Your task to perform on an android device: turn smart compose on in the gmail app Image 0: 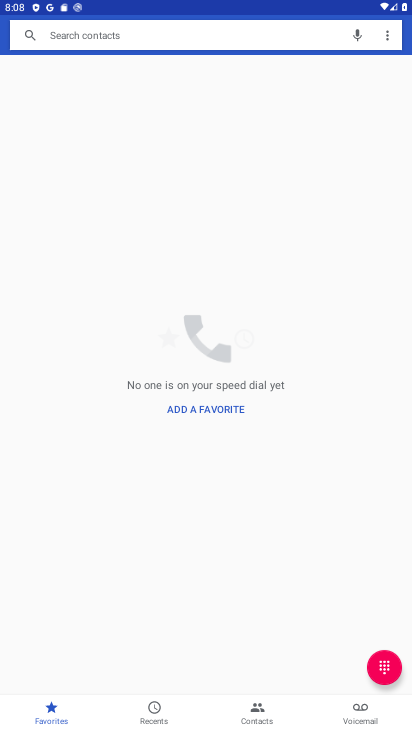
Step 0: press home button
Your task to perform on an android device: turn smart compose on in the gmail app Image 1: 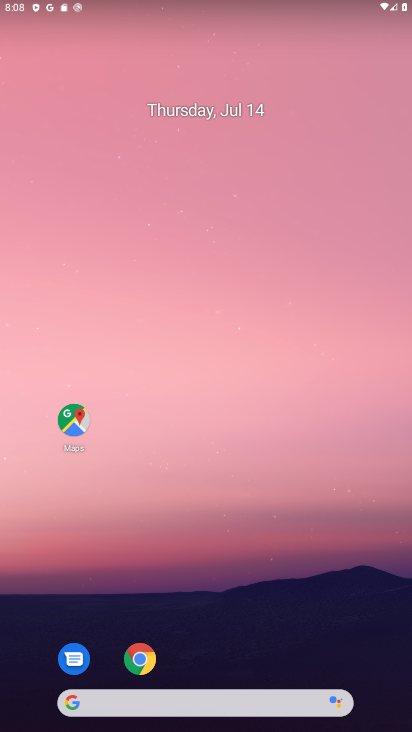
Step 1: drag from (201, 570) to (11, 25)
Your task to perform on an android device: turn smart compose on in the gmail app Image 2: 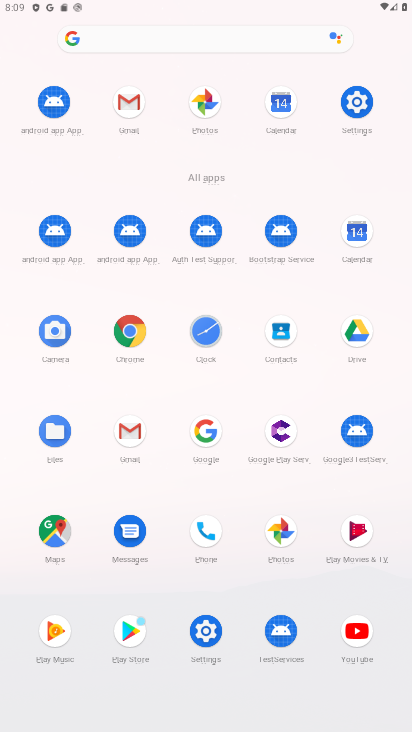
Step 2: click (124, 116)
Your task to perform on an android device: turn smart compose on in the gmail app Image 3: 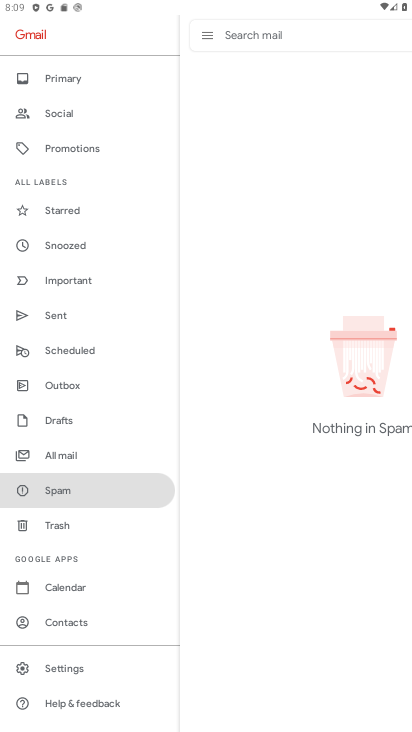
Step 3: click (70, 670)
Your task to perform on an android device: turn smart compose on in the gmail app Image 4: 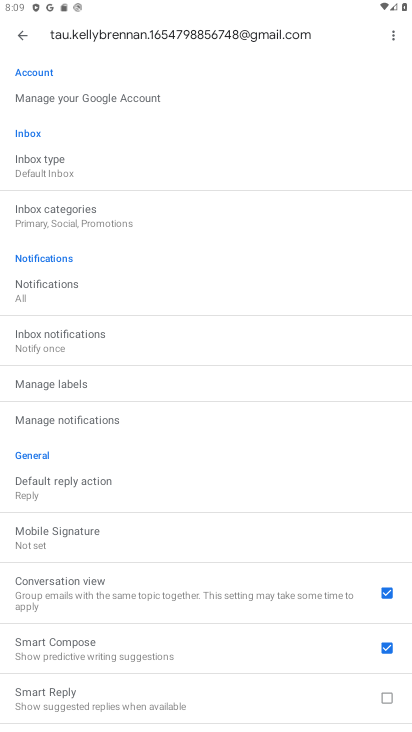
Step 4: task complete